Your task to perform on an android device: change the clock style Image 0: 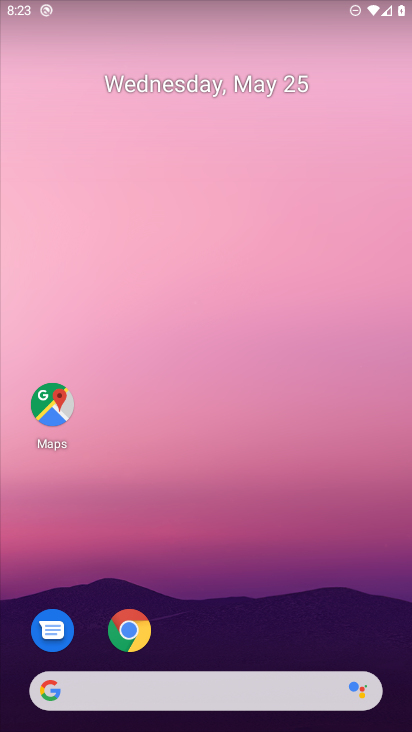
Step 0: drag from (192, 676) to (268, 224)
Your task to perform on an android device: change the clock style Image 1: 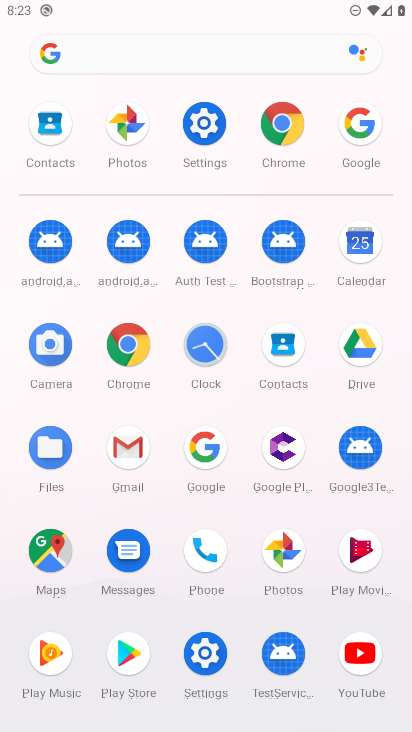
Step 1: click (205, 350)
Your task to perform on an android device: change the clock style Image 2: 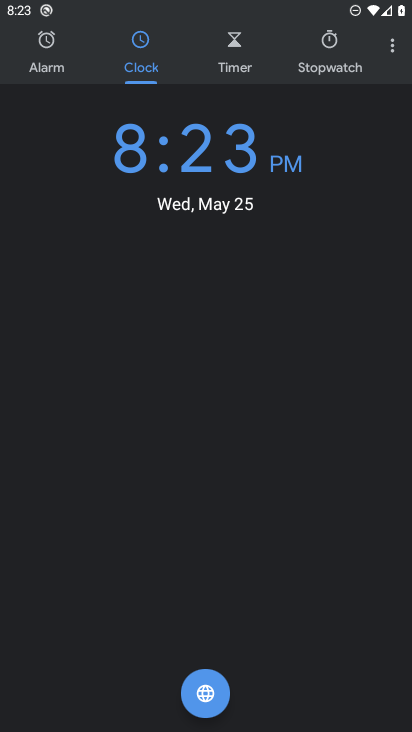
Step 2: click (393, 41)
Your task to perform on an android device: change the clock style Image 3: 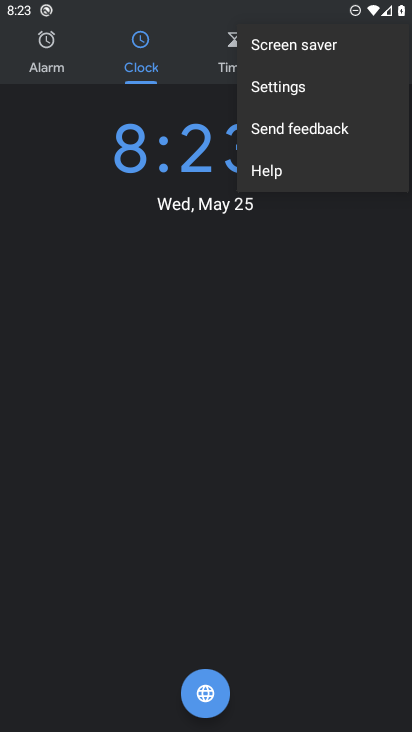
Step 3: click (300, 86)
Your task to perform on an android device: change the clock style Image 4: 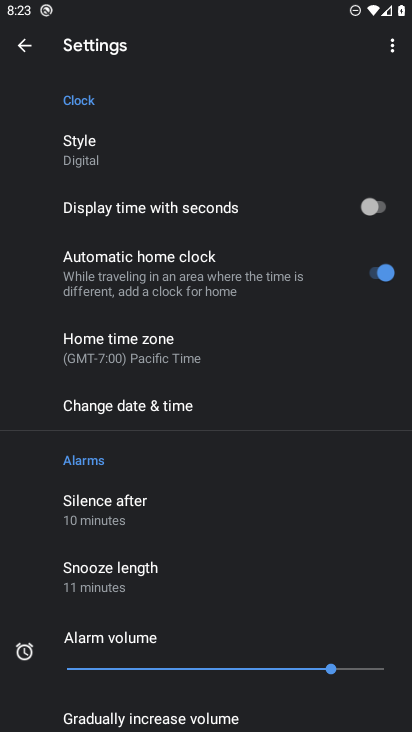
Step 4: click (103, 160)
Your task to perform on an android device: change the clock style Image 5: 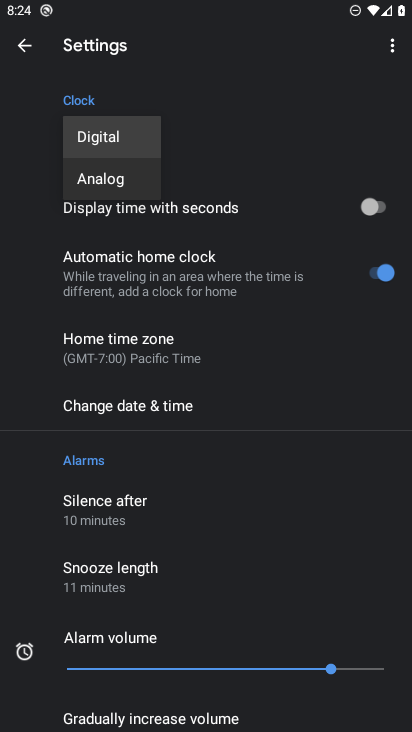
Step 5: click (95, 185)
Your task to perform on an android device: change the clock style Image 6: 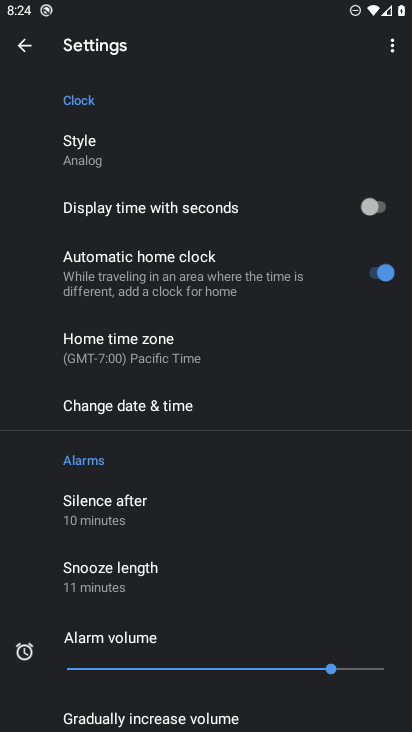
Step 6: task complete